Your task to perform on an android device: check storage Image 0: 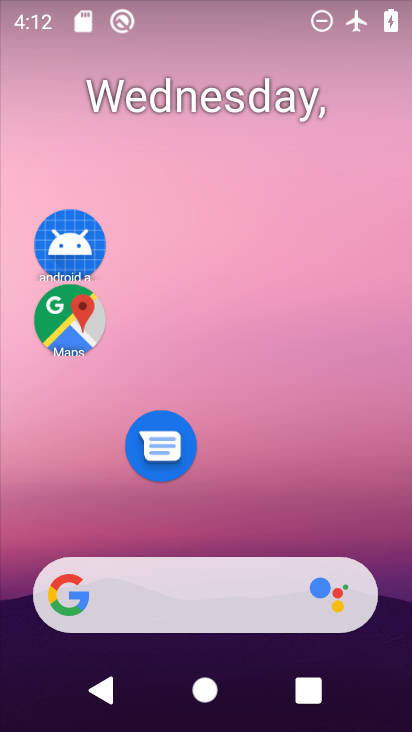
Step 0: drag from (299, 531) to (312, 11)
Your task to perform on an android device: check storage Image 1: 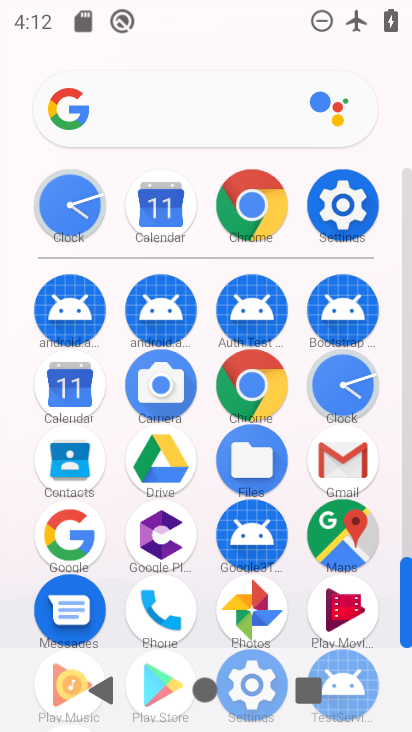
Step 1: click (338, 229)
Your task to perform on an android device: check storage Image 2: 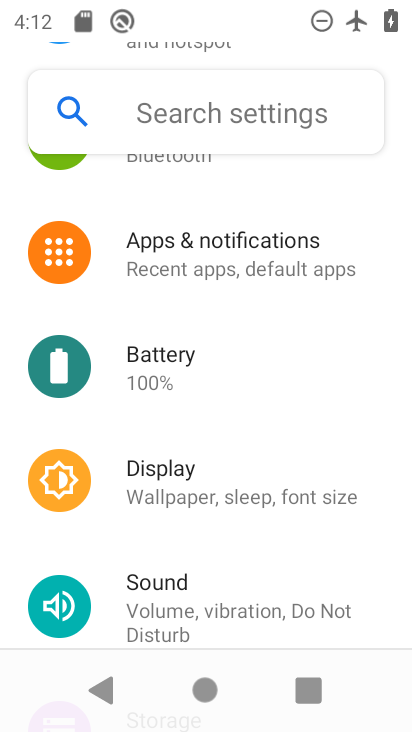
Step 2: drag from (211, 285) to (199, 554)
Your task to perform on an android device: check storage Image 3: 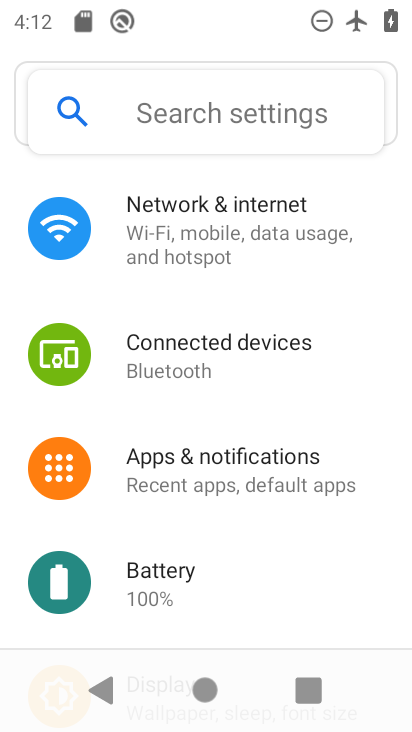
Step 3: drag from (199, 554) to (226, 85)
Your task to perform on an android device: check storage Image 4: 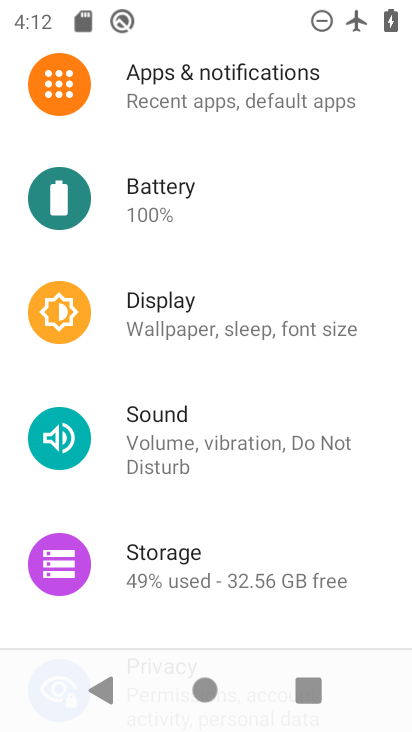
Step 4: drag from (222, 510) to (232, 289)
Your task to perform on an android device: check storage Image 5: 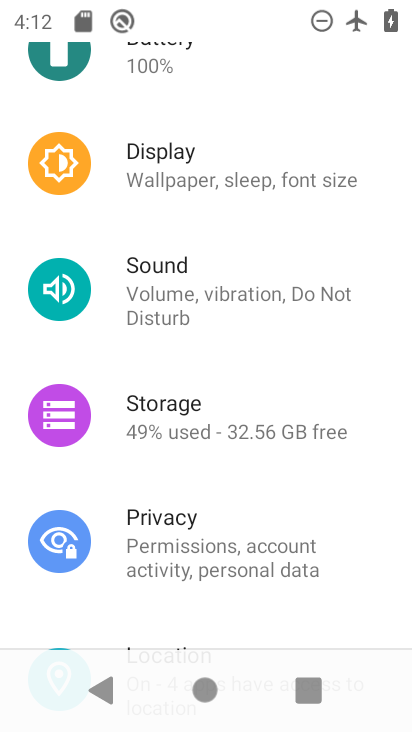
Step 5: click (196, 393)
Your task to perform on an android device: check storage Image 6: 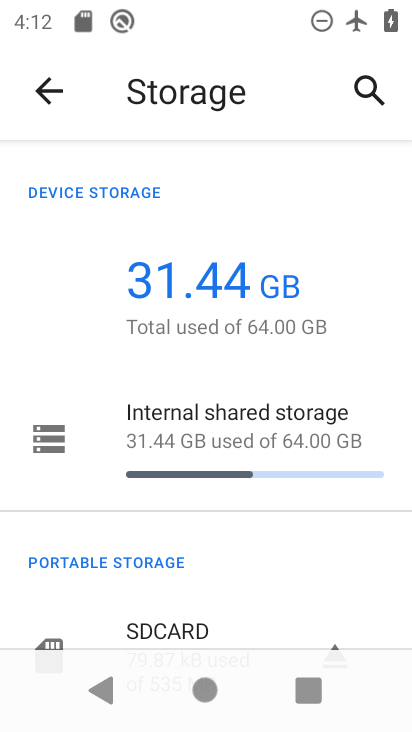
Step 6: task complete